Your task to perform on an android device: open app "ZOOM Cloud Meetings" Image 0: 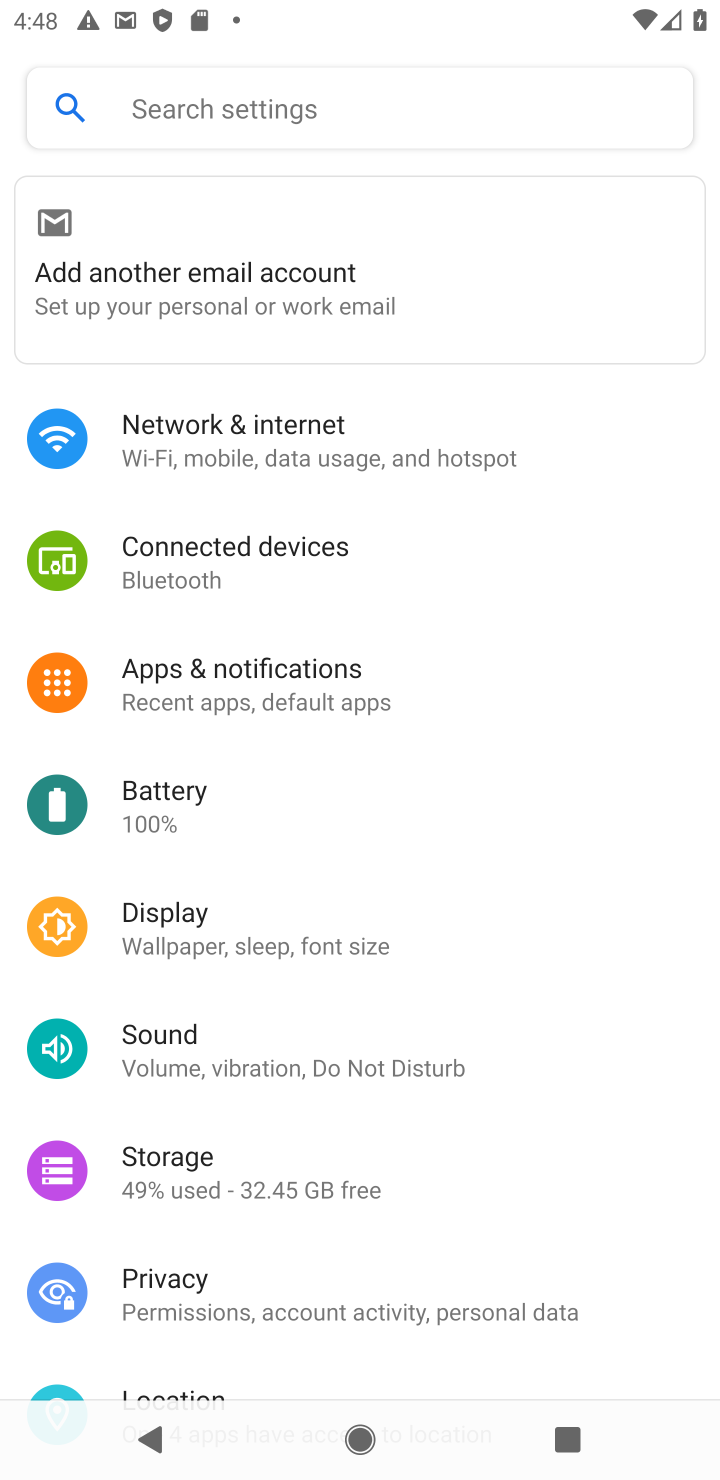
Step 0: press home button
Your task to perform on an android device: open app "ZOOM Cloud Meetings" Image 1: 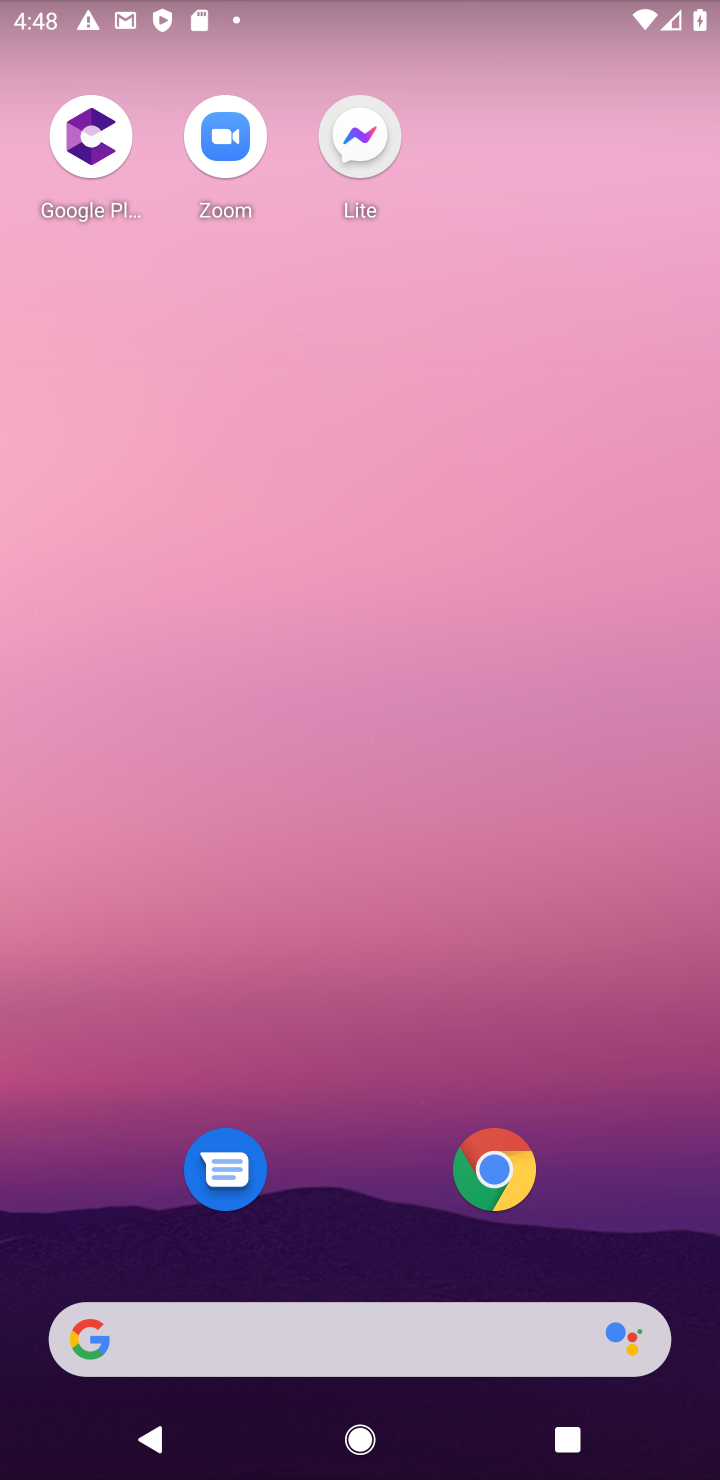
Step 1: drag from (610, 1186) to (392, 113)
Your task to perform on an android device: open app "ZOOM Cloud Meetings" Image 2: 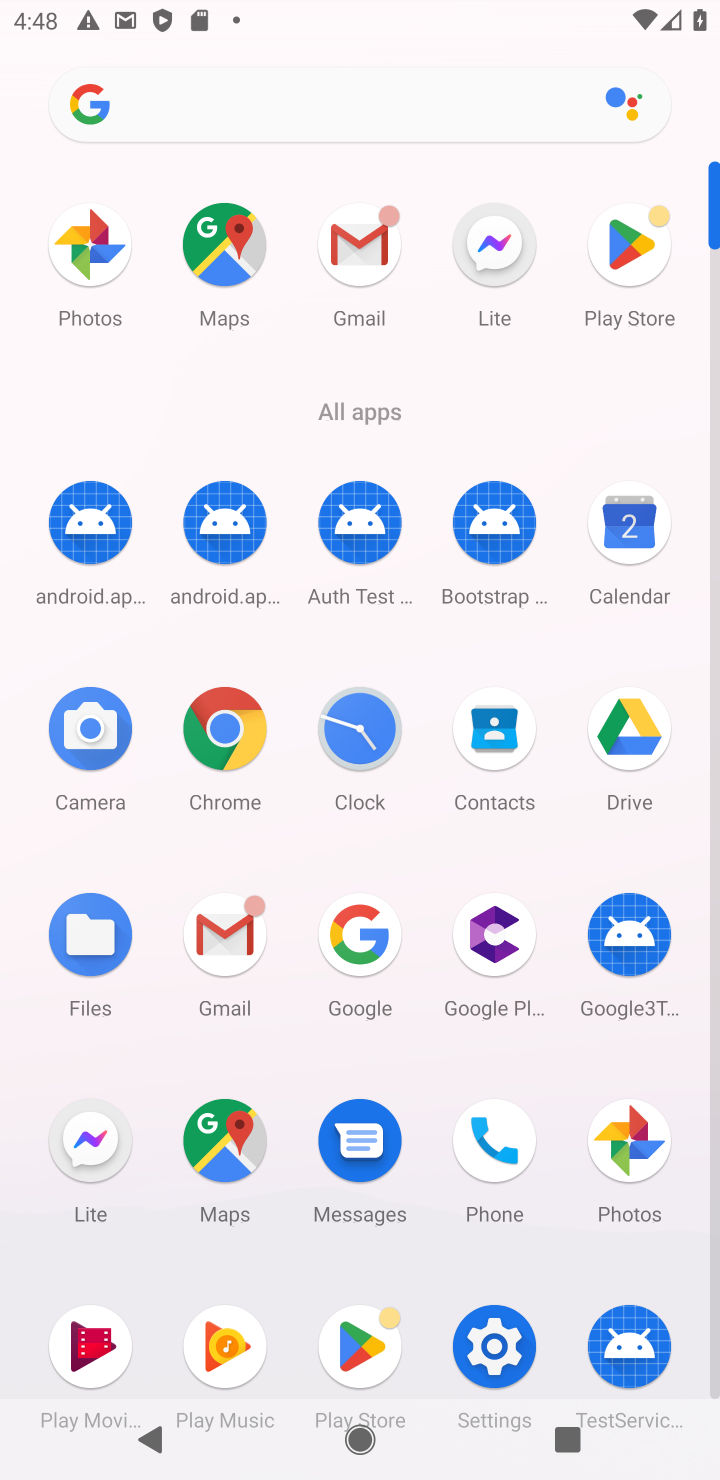
Step 2: click (621, 231)
Your task to perform on an android device: open app "ZOOM Cloud Meetings" Image 3: 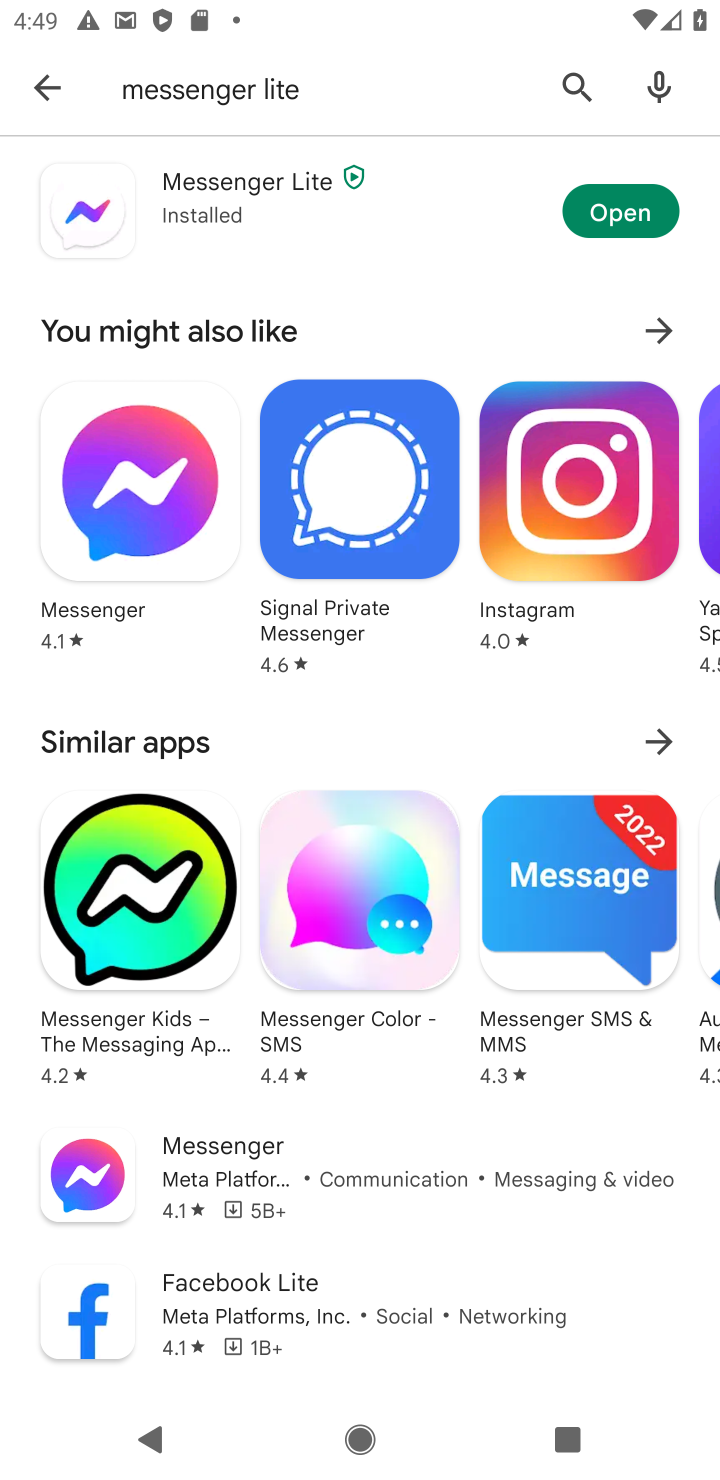
Step 3: click (573, 85)
Your task to perform on an android device: open app "ZOOM Cloud Meetings" Image 4: 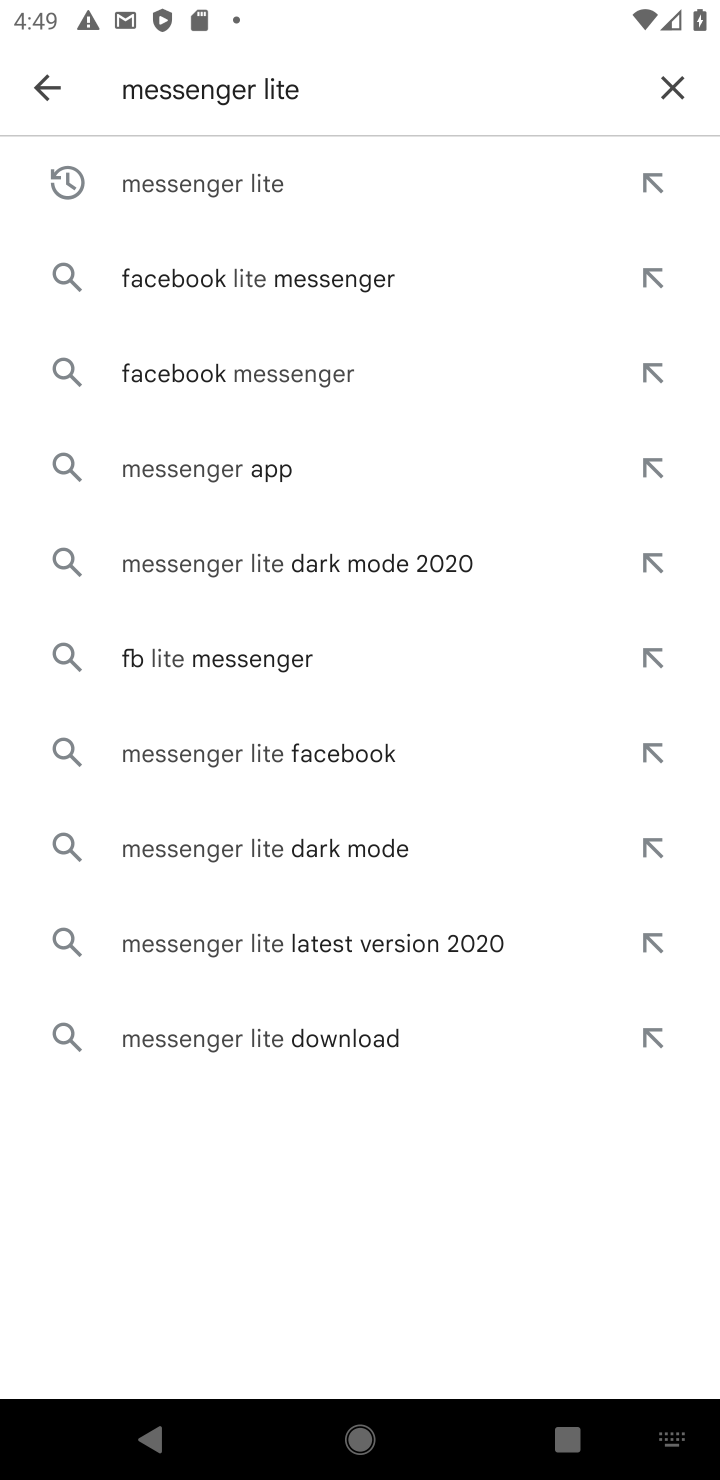
Step 4: click (675, 95)
Your task to perform on an android device: open app "ZOOM Cloud Meetings" Image 5: 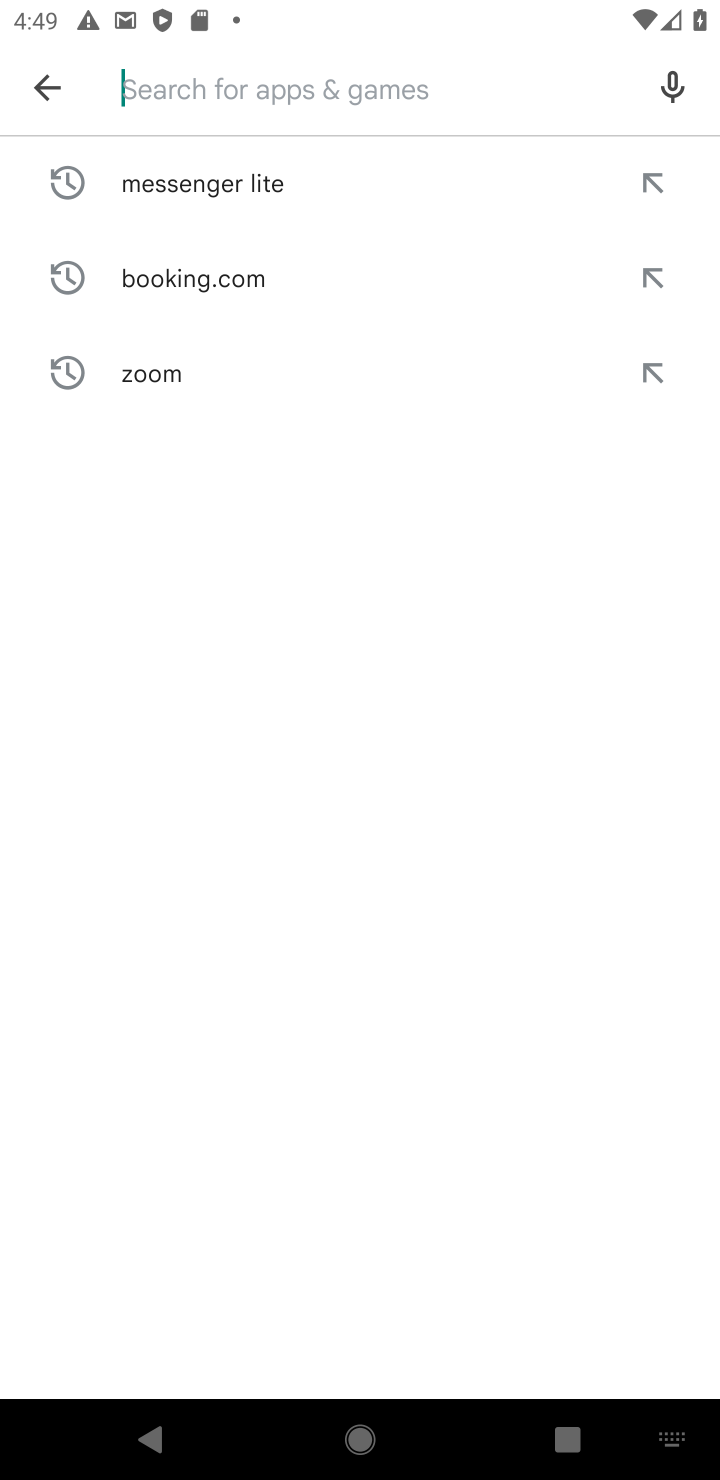
Step 5: type "zoom cloud meetings"
Your task to perform on an android device: open app "ZOOM Cloud Meetings" Image 6: 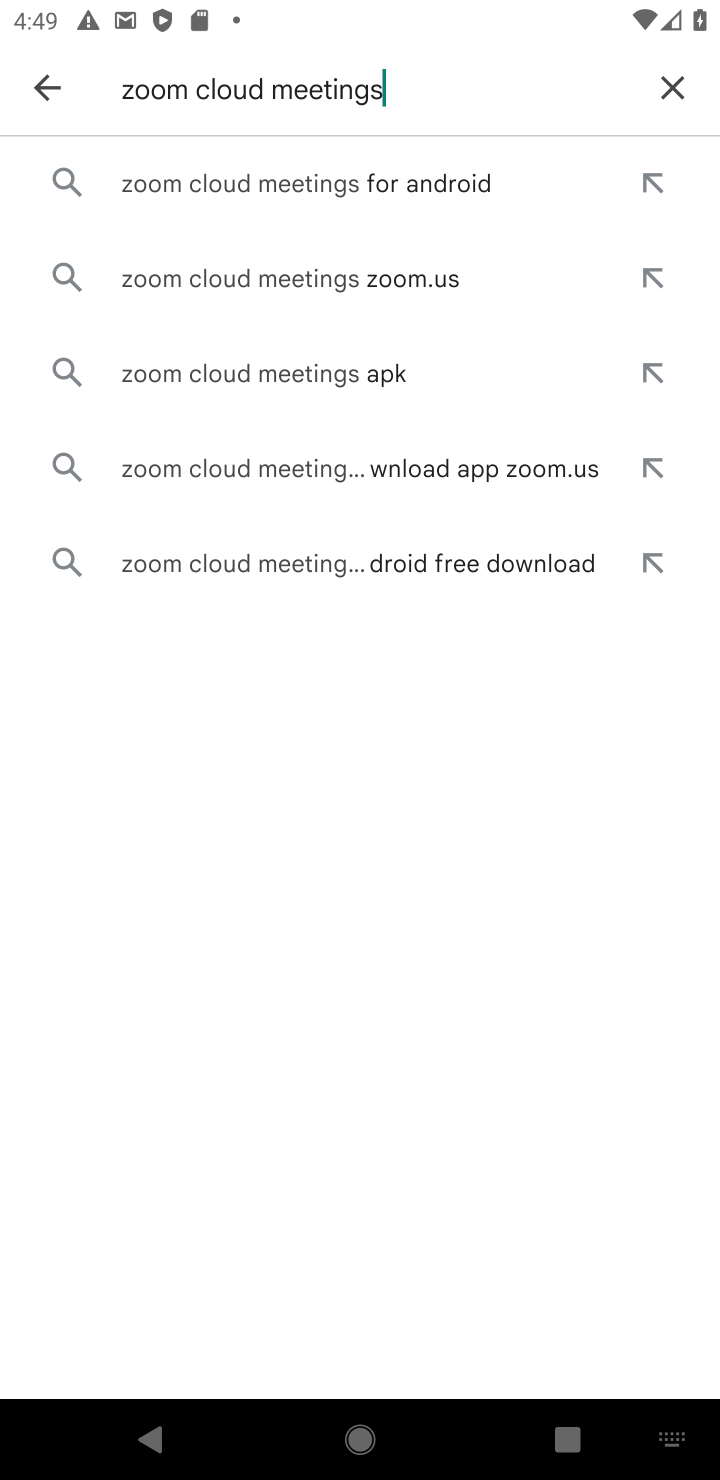
Step 6: press enter
Your task to perform on an android device: open app "ZOOM Cloud Meetings" Image 7: 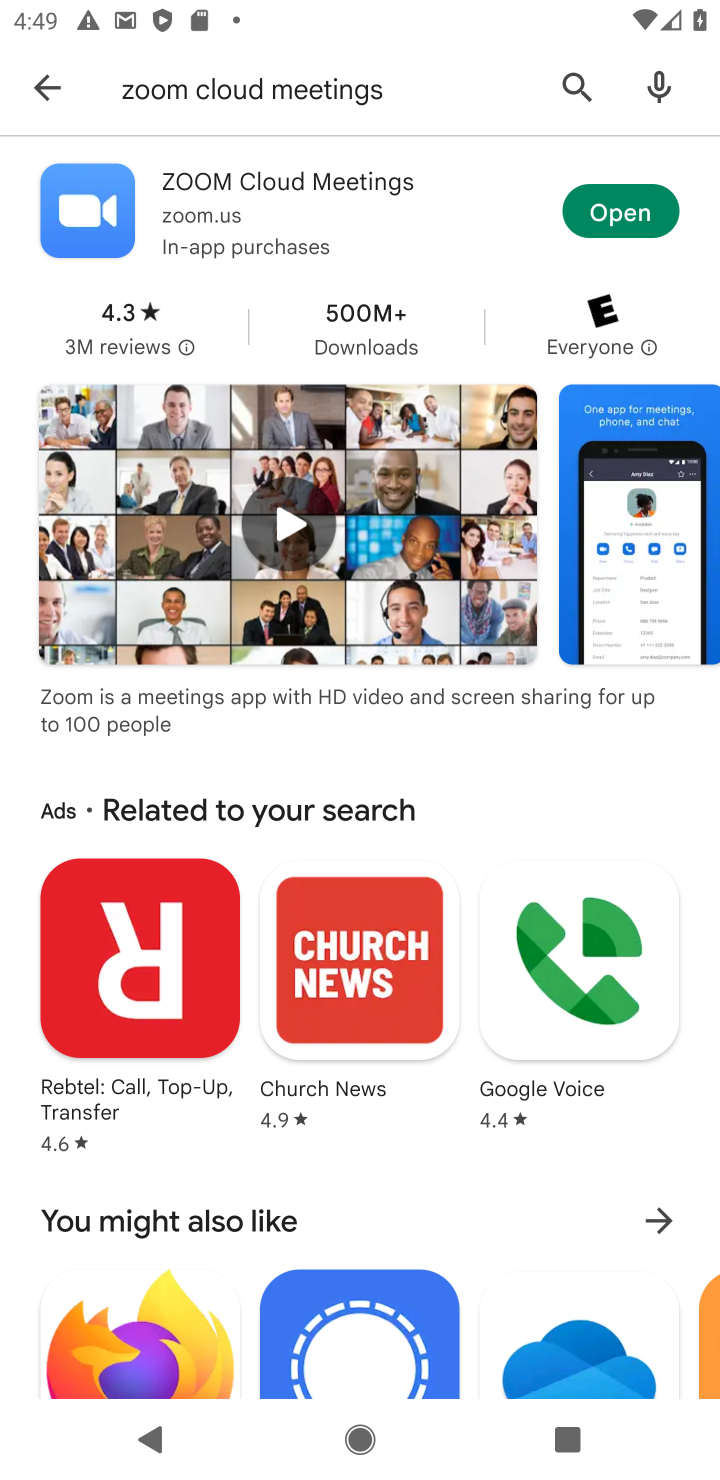
Step 7: click (642, 198)
Your task to perform on an android device: open app "ZOOM Cloud Meetings" Image 8: 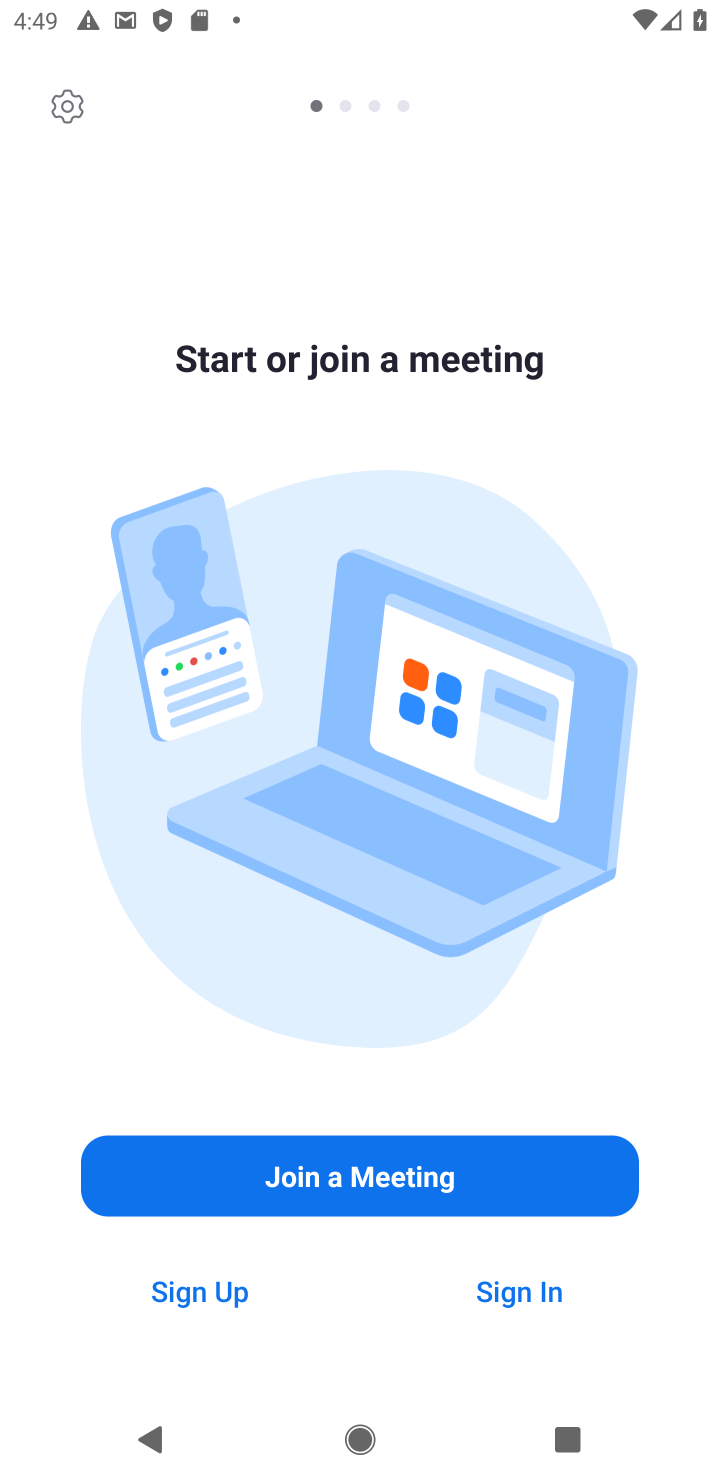
Step 8: task complete